Your task to perform on an android device: What's the weather today? Image 0: 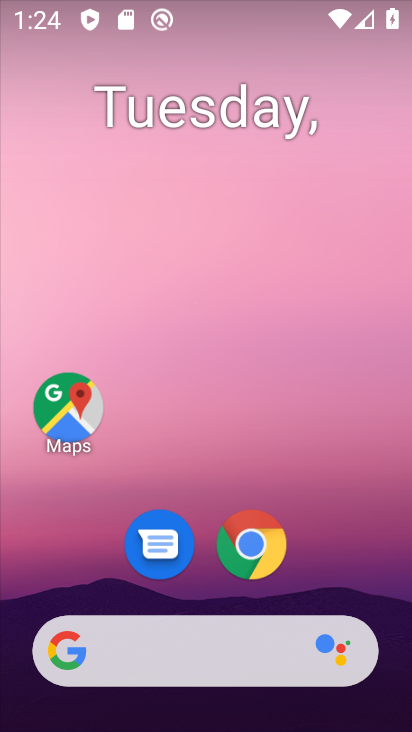
Step 0: drag from (10, 268) to (310, 273)
Your task to perform on an android device: What's the weather today? Image 1: 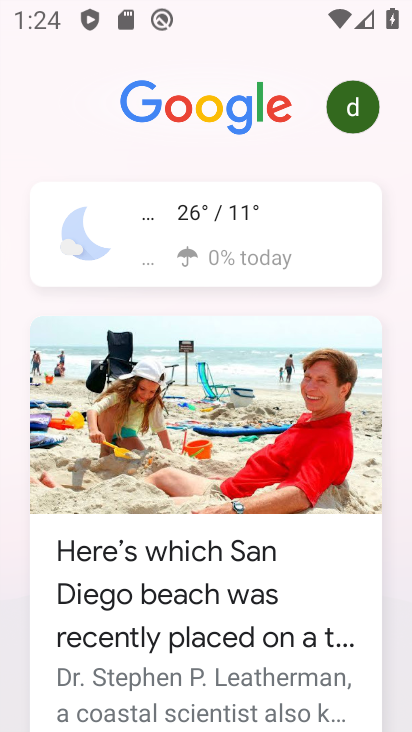
Step 1: click (281, 238)
Your task to perform on an android device: What's the weather today? Image 2: 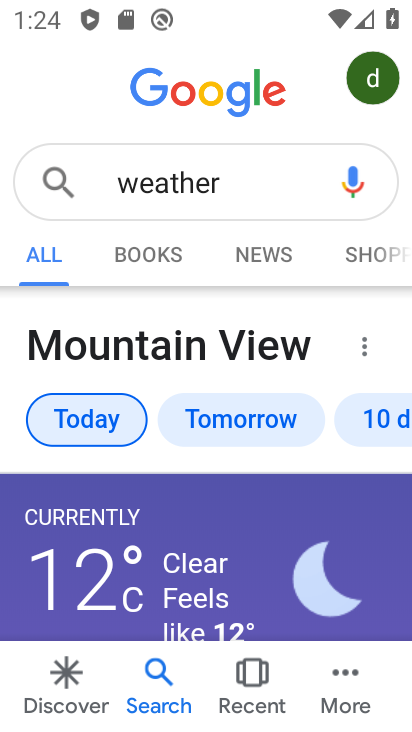
Step 2: task complete